Your task to perform on an android device: change the clock display to digital Image 0: 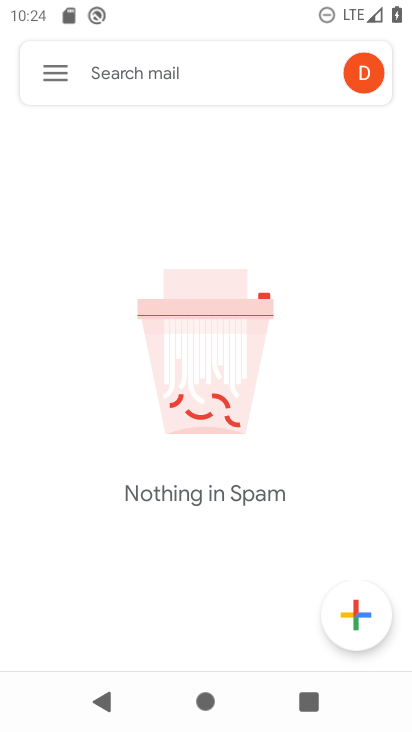
Step 0: press home button
Your task to perform on an android device: change the clock display to digital Image 1: 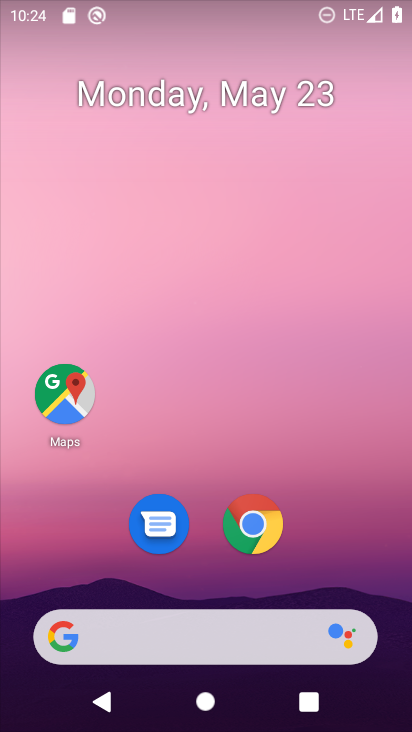
Step 1: drag from (246, 408) to (277, 94)
Your task to perform on an android device: change the clock display to digital Image 2: 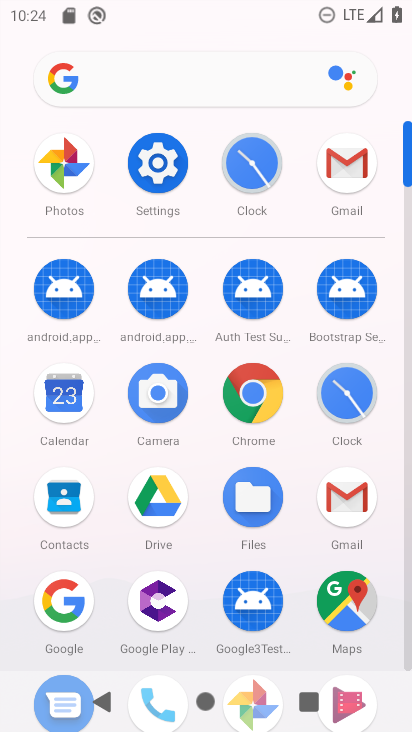
Step 2: click (257, 163)
Your task to perform on an android device: change the clock display to digital Image 3: 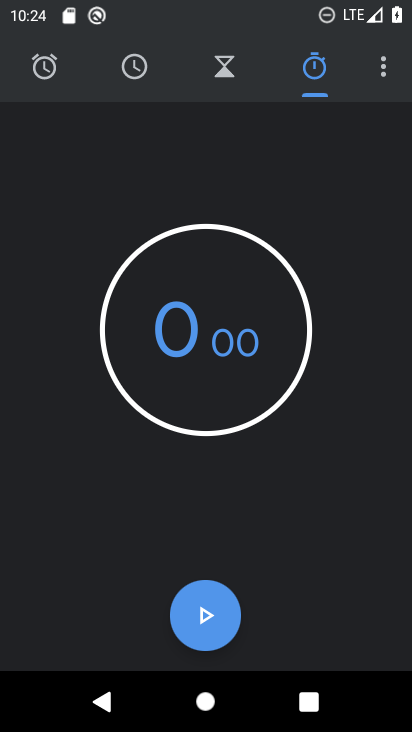
Step 3: click (141, 68)
Your task to perform on an android device: change the clock display to digital Image 4: 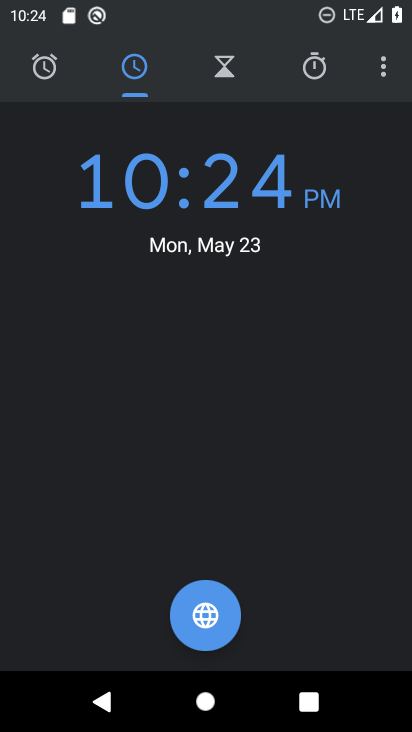
Step 4: task complete